Your task to perform on an android device: Open the web browser Image 0: 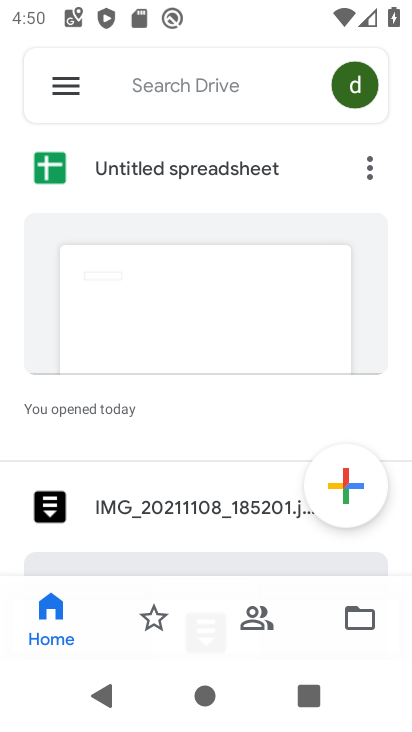
Step 0: press home button
Your task to perform on an android device: Open the web browser Image 1: 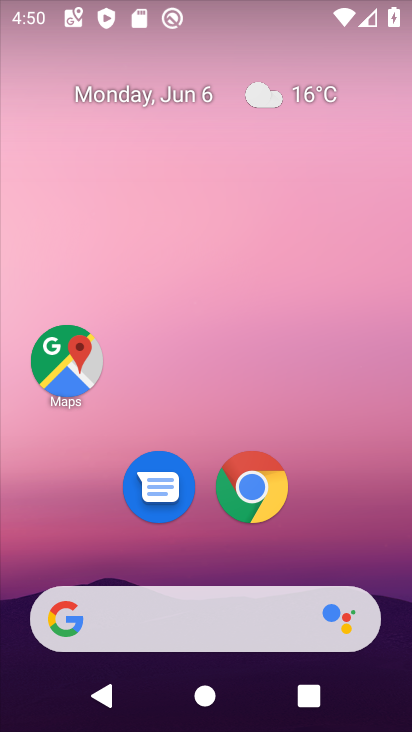
Step 1: click (229, 635)
Your task to perform on an android device: Open the web browser Image 2: 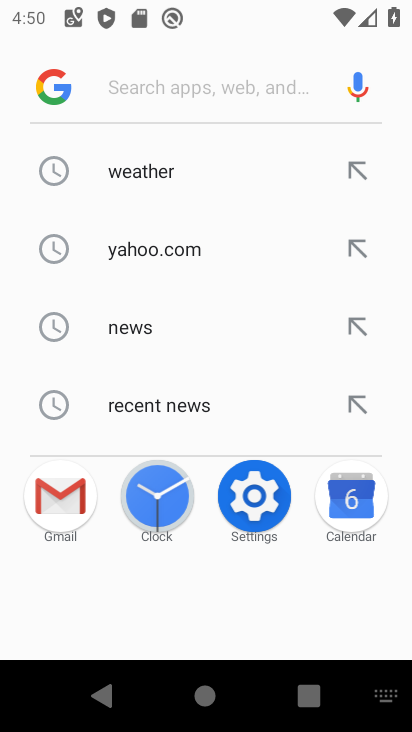
Step 2: task complete